Your task to perform on an android device: Open ESPN.com Image 0: 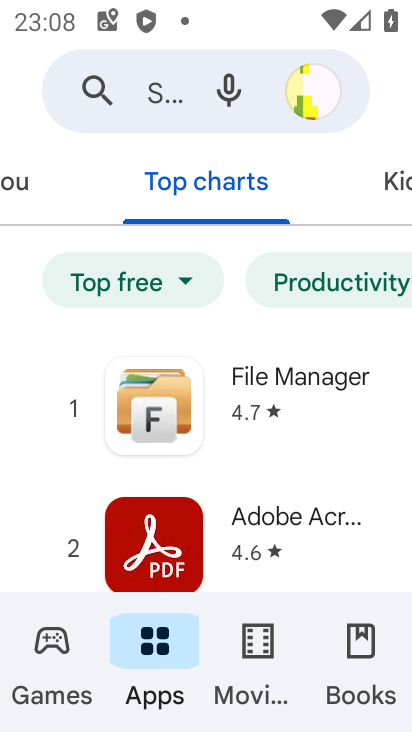
Step 0: press home button
Your task to perform on an android device: Open ESPN.com Image 1: 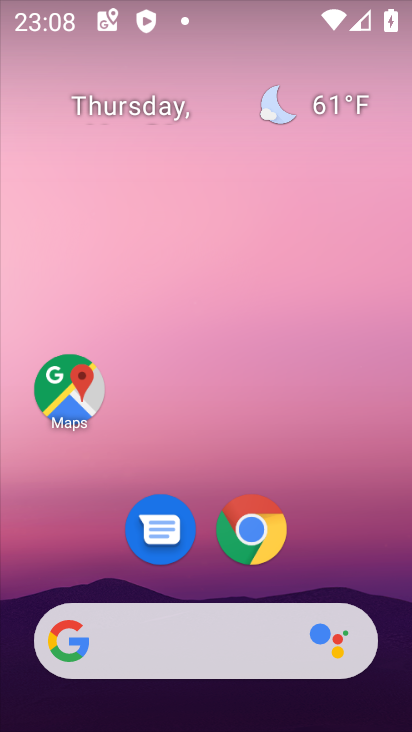
Step 1: click (230, 632)
Your task to perform on an android device: Open ESPN.com Image 2: 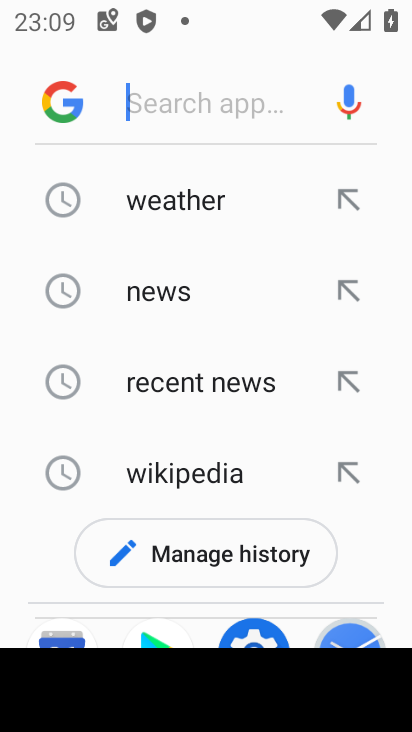
Step 2: type "espn.copm"
Your task to perform on an android device: Open ESPN.com Image 3: 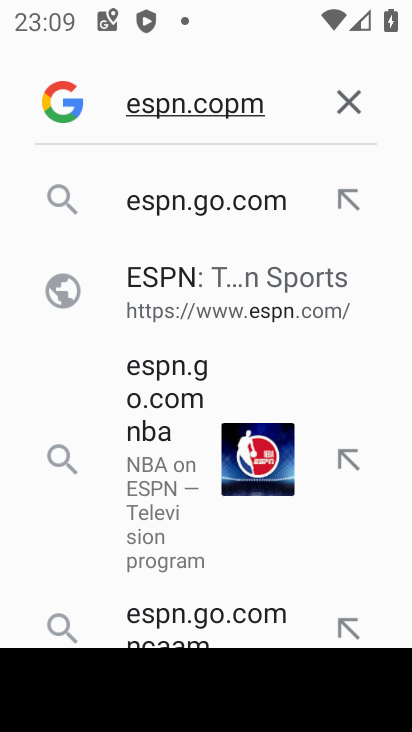
Step 3: click (178, 203)
Your task to perform on an android device: Open ESPN.com Image 4: 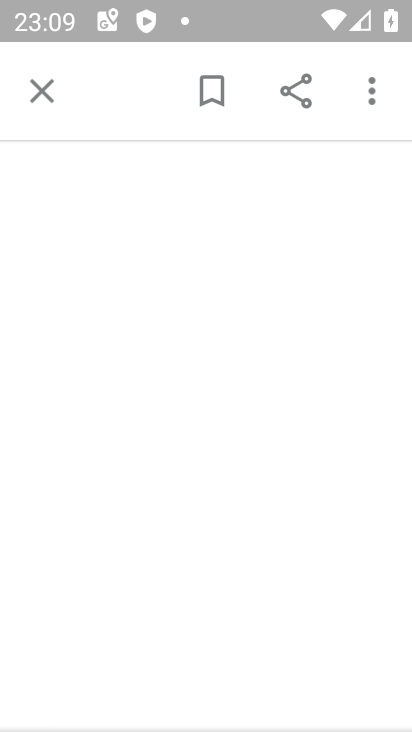
Step 4: task complete